Your task to perform on an android device: toggle pop-ups in chrome Image 0: 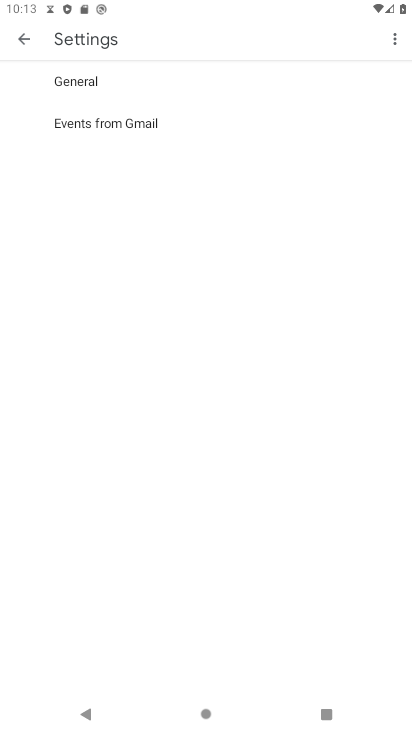
Step 0: press home button
Your task to perform on an android device: toggle pop-ups in chrome Image 1: 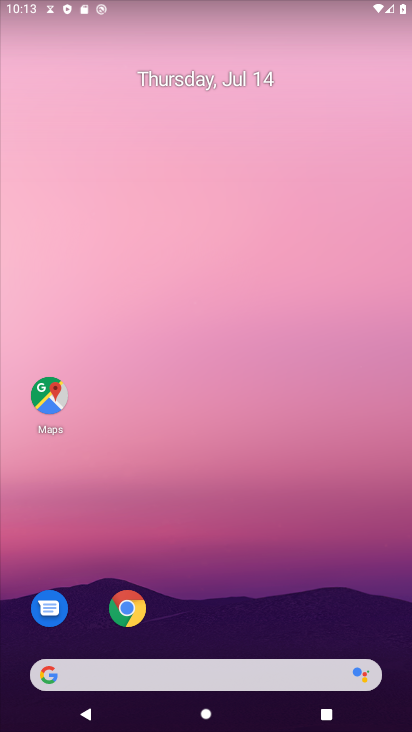
Step 1: click (130, 612)
Your task to perform on an android device: toggle pop-ups in chrome Image 2: 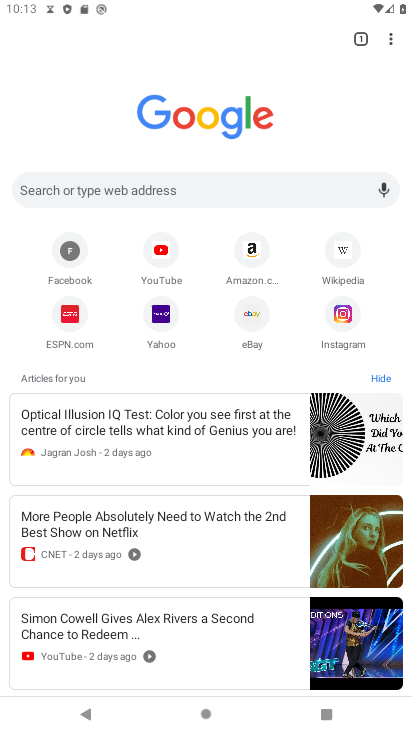
Step 2: click (390, 44)
Your task to perform on an android device: toggle pop-ups in chrome Image 3: 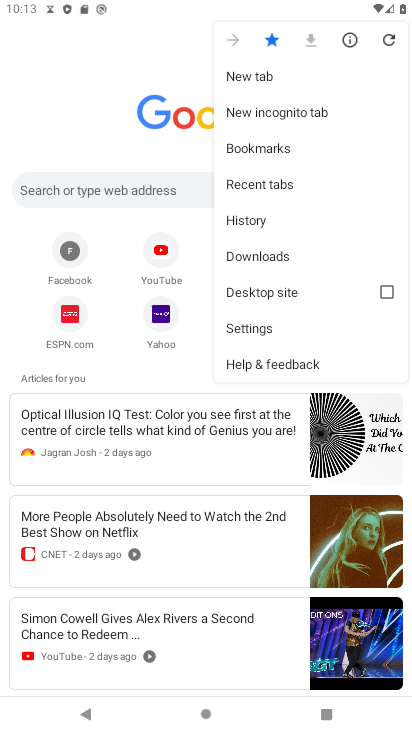
Step 3: click (257, 327)
Your task to perform on an android device: toggle pop-ups in chrome Image 4: 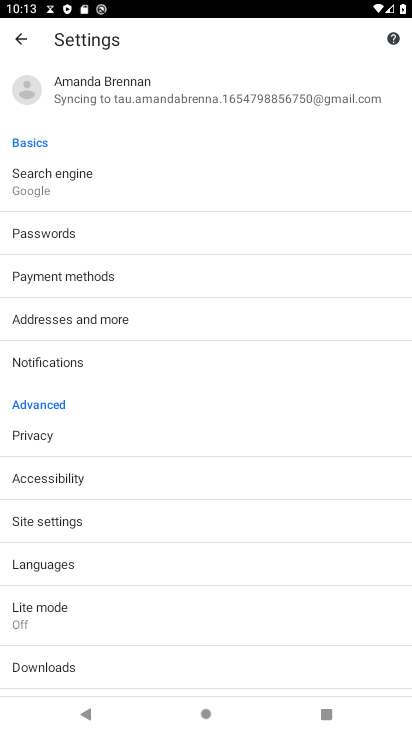
Step 4: click (41, 521)
Your task to perform on an android device: toggle pop-ups in chrome Image 5: 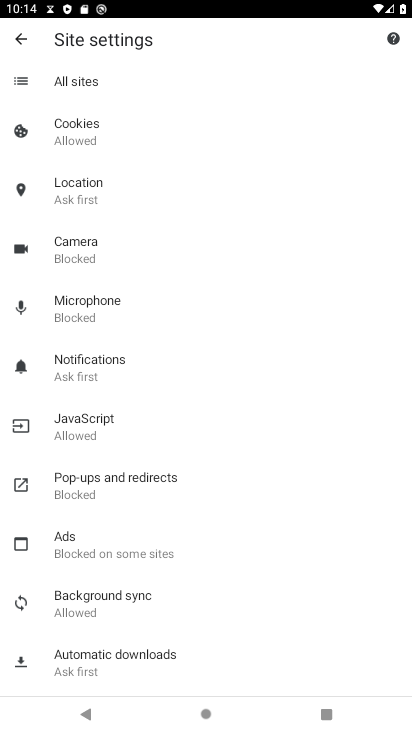
Step 5: click (89, 476)
Your task to perform on an android device: toggle pop-ups in chrome Image 6: 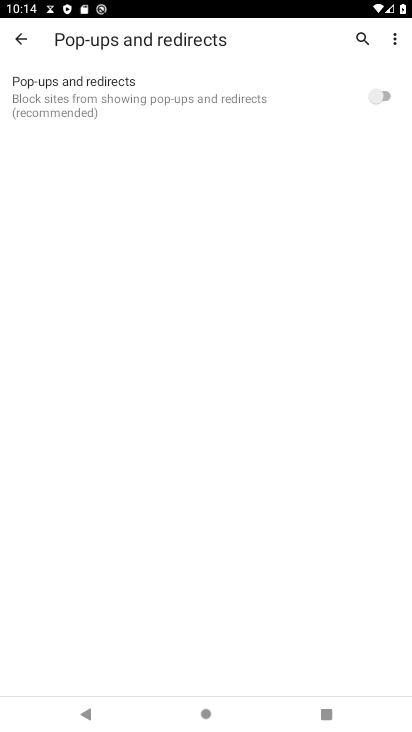
Step 6: click (382, 91)
Your task to perform on an android device: toggle pop-ups in chrome Image 7: 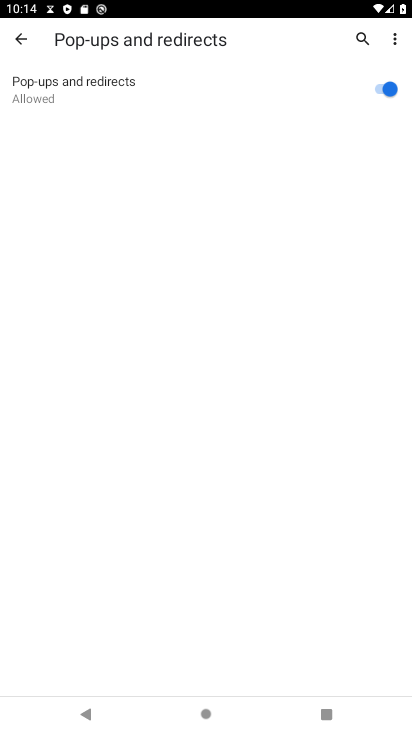
Step 7: task complete